Your task to perform on an android device: Open battery settings Image 0: 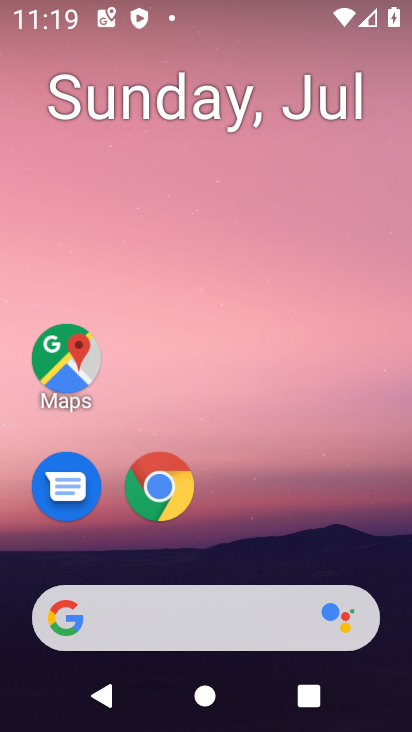
Step 0: press home button
Your task to perform on an android device: Open battery settings Image 1: 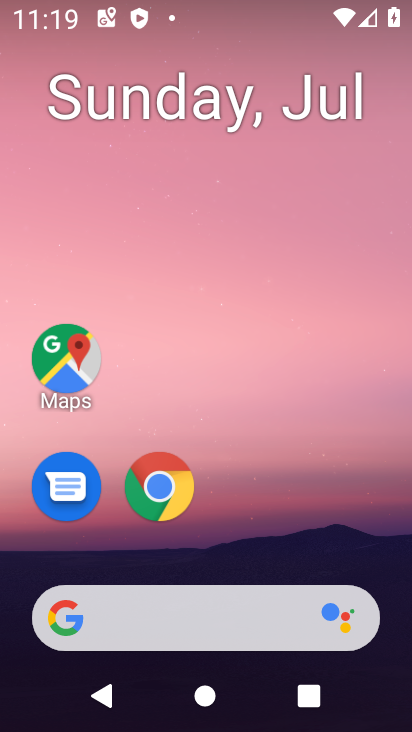
Step 1: drag from (359, 531) to (390, 107)
Your task to perform on an android device: Open battery settings Image 2: 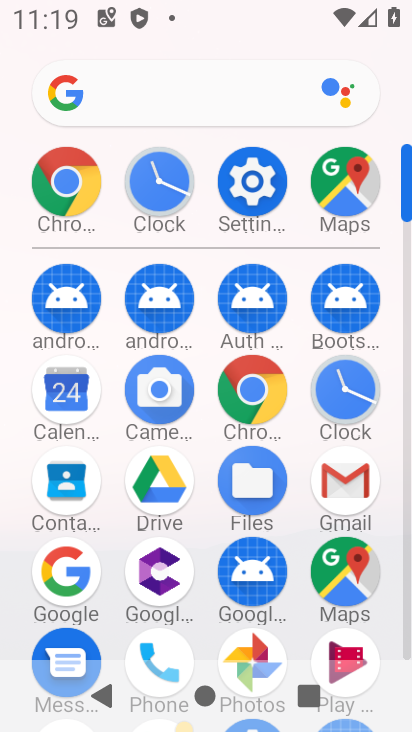
Step 2: click (262, 189)
Your task to perform on an android device: Open battery settings Image 3: 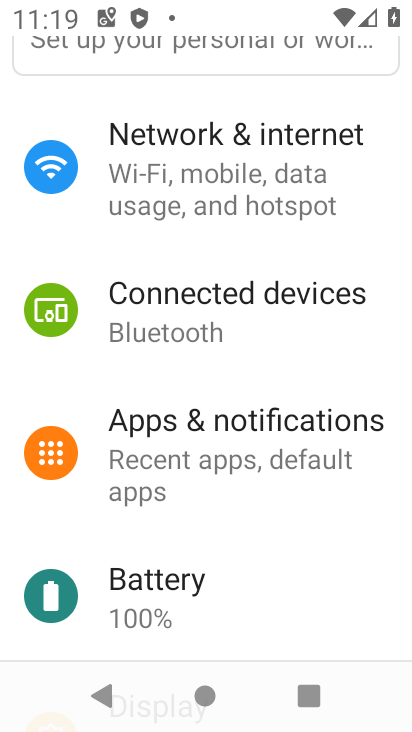
Step 3: drag from (370, 170) to (380, 295)
Your task to perform on an android device: Open battery settings Image 4: 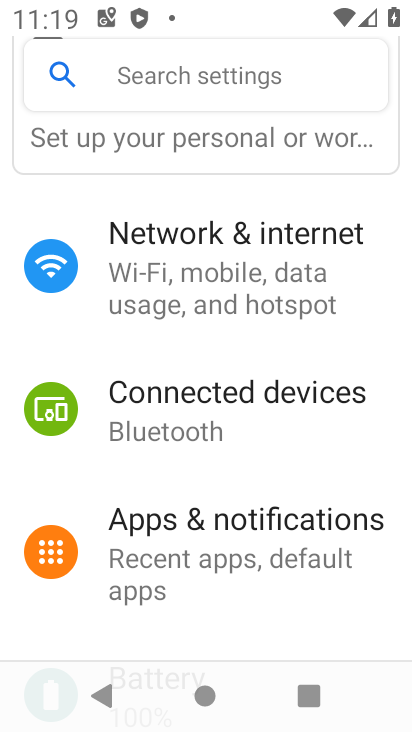
Step 4: drag from (374, 211) to (375, 366)
Your task to perform on an android device: Open battery settings Image 5: 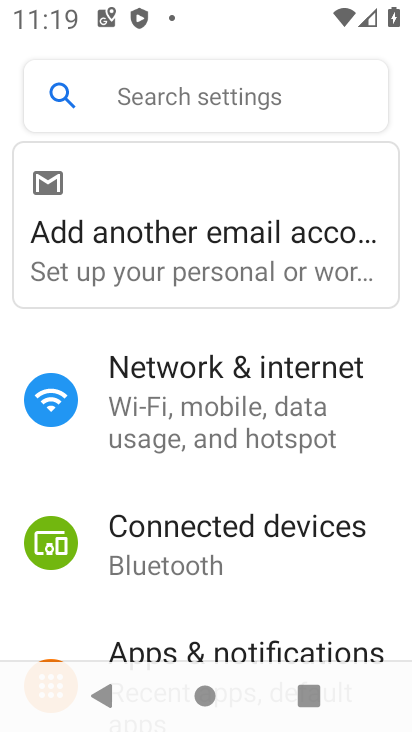
Step 5: drag from (371, 175) to (377, 392)
Your task to perform on an android device: Open battery settings Image 6: 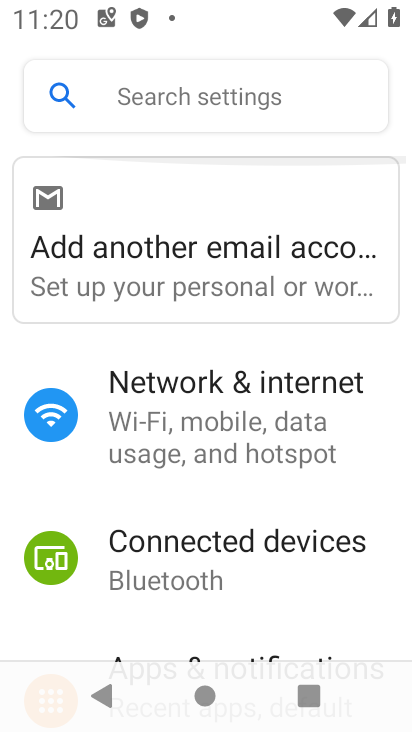
Step 6: drag from (366, 462) to (368, 366)
Your task to perform on an android device: Open battery settings Image 7: 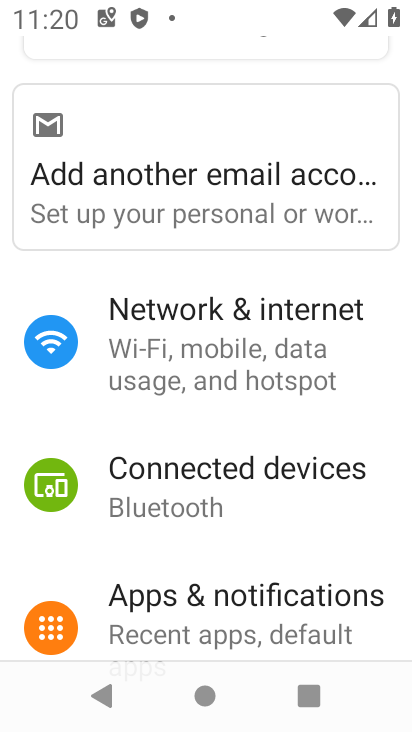
Step 7: drag from (379, 496) to (379, 346)
Your task to perform on an android device: Open battery settings Image 8: 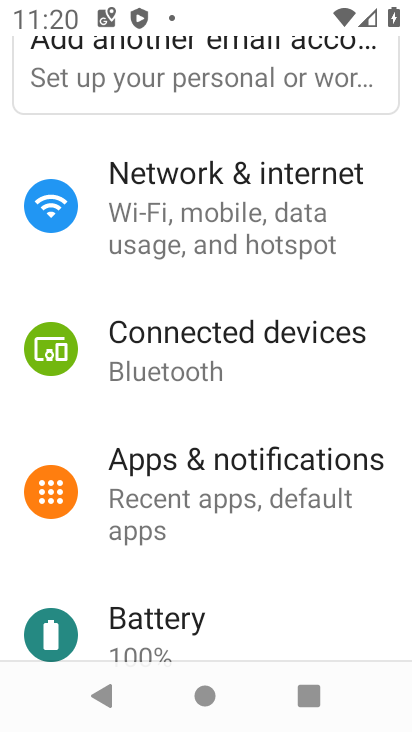
Step 8: drag from (338, 584) to (329, 278)
Your task to perform on an android device: Open battery settings Image 9: 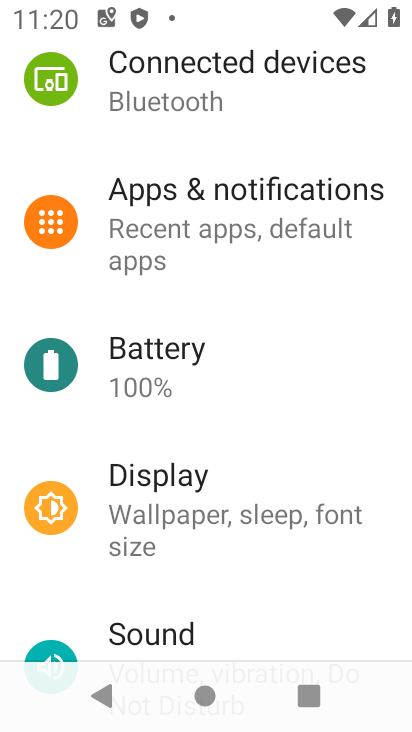
Step 9: drag from (324, 555) to (308, 287)
Your task to perform on an android device: Open battery settings Image 10: 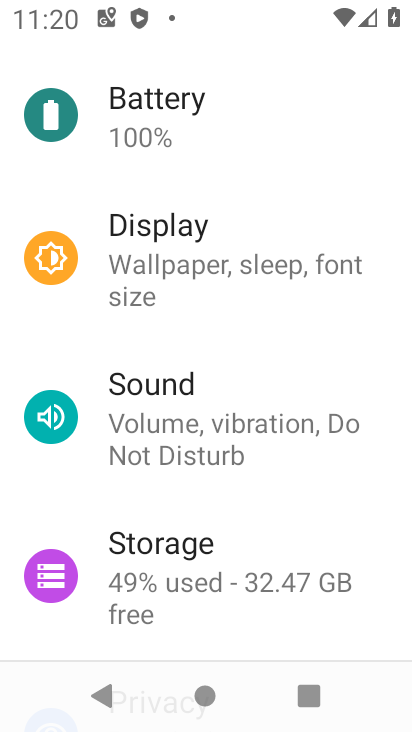
Step 10: click (242, 125)
Your task to perform on an android device: Open battery settings Image 11: 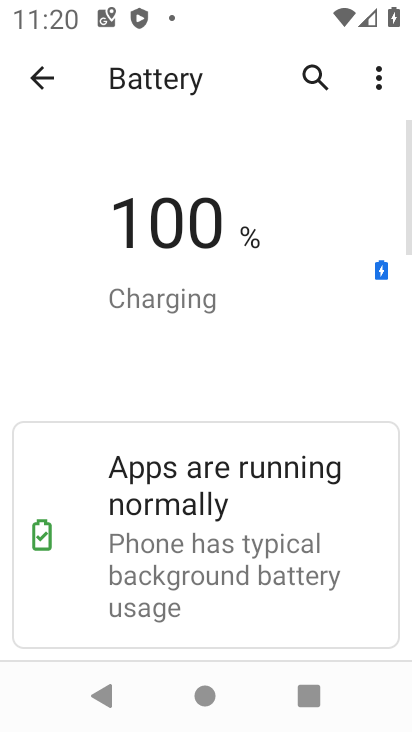
Step 11: task complete